Your task to perform on an android device: Search for vegetarian restaurants on Maps Image 0: 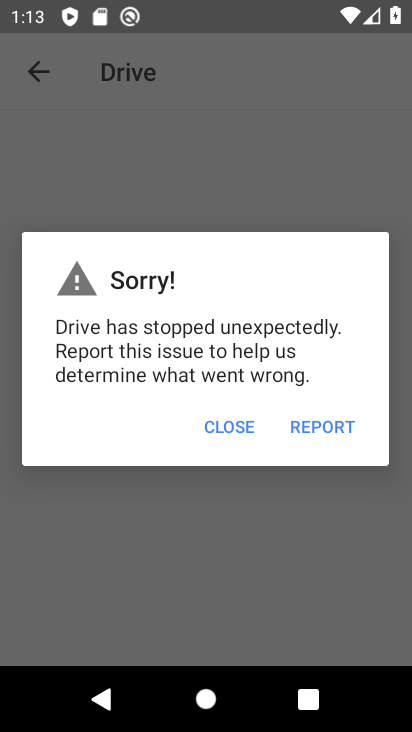
Step 0: press home button
Your task to perform on an android device: Search for vegetarian restaurants on Maps Image 1: 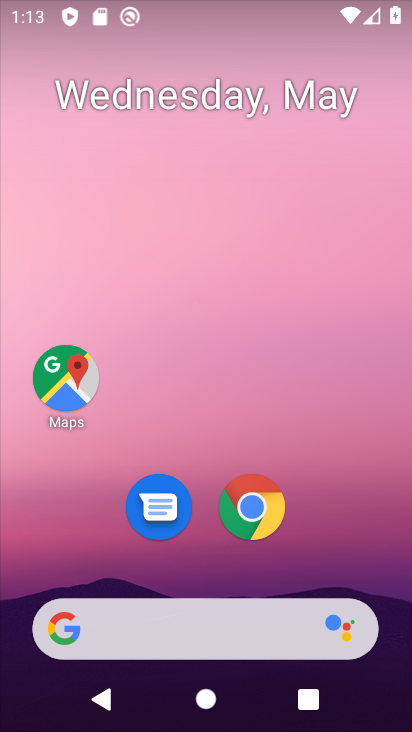
Step 1: drag from (214, 553) to (214, 205)
Your task to perform on an android device: Search for vegetarian restaurants on Maps Image 2: 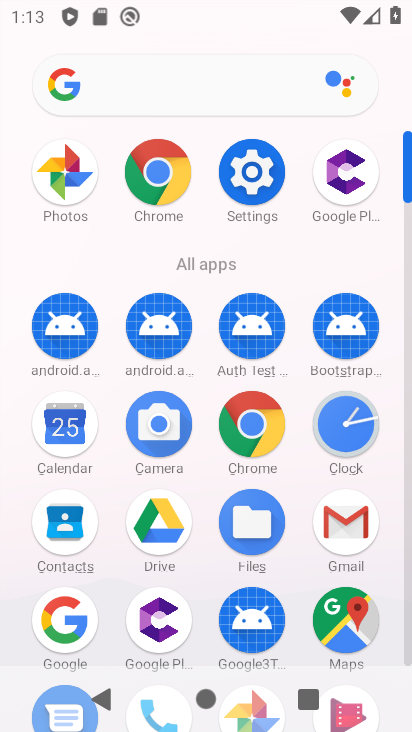
Step 2: drag from (287, 264) to (299, 175)
Your task to perform on an android device: Search for vegetarian restaurants on Maps Image 3: 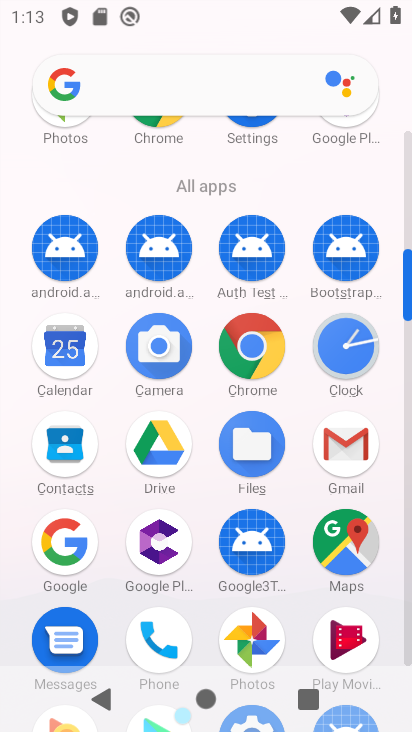
Step 3: click (336, 539)
Your task to perform on an android device: Search for vegetarian restaurants on Maps Image 4: 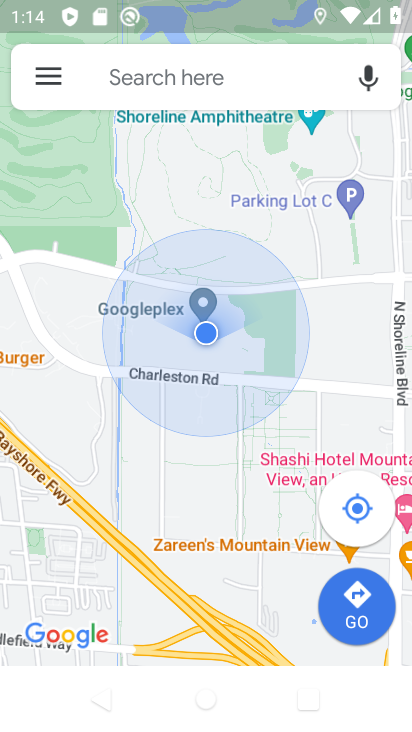
Step 4: click (235, 94)
Your task to perform on an android device: Search for vegetarian restaurants on Maps Image 5: 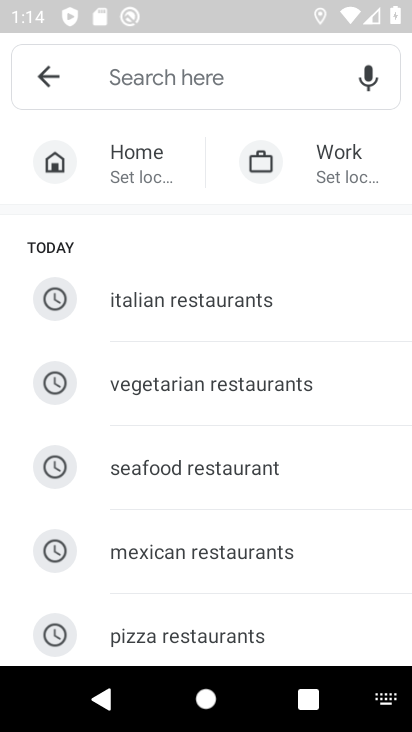
Step 5: click (244, 401)
Your task to perform on an android device: Search for vegetarian restaurants on Maps Image 6: 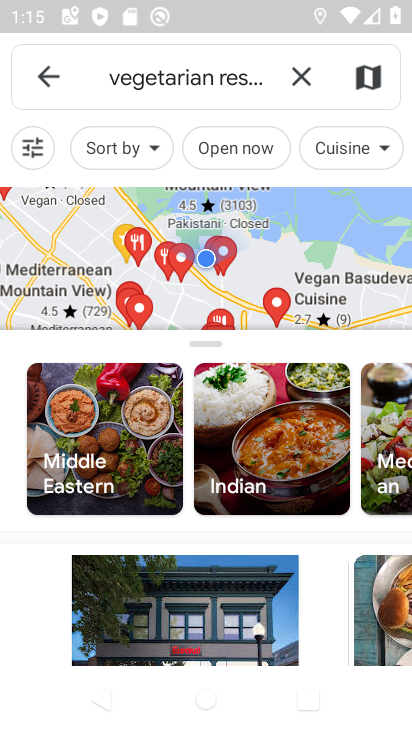
Step 6: task complete